Your task to perform on an android device: turn pop-ups on in chrome Image 0: 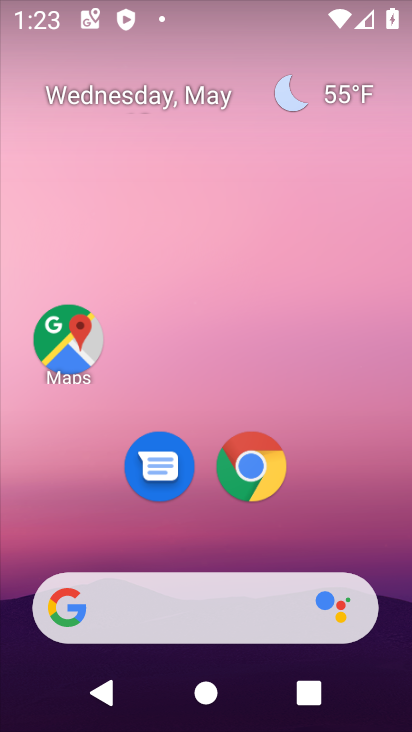
Step 0: click (250, 460)
Your task to perform on an android device: turn pop-ups on in chrome Image 1: 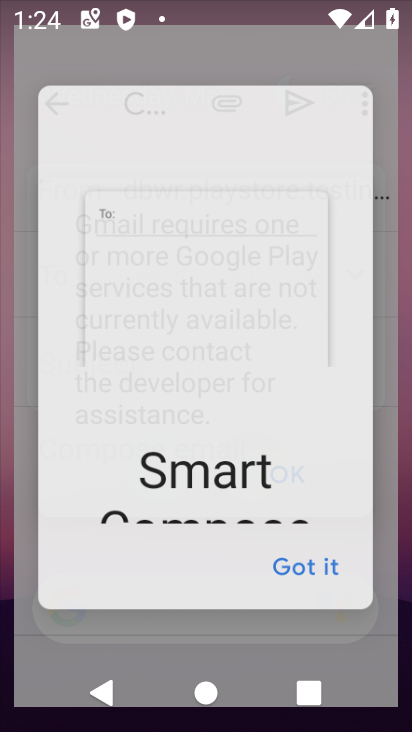
Step 1: click (252, 457)
Your task to perform on an android device: turn pop-ups on in chrome Image 2: 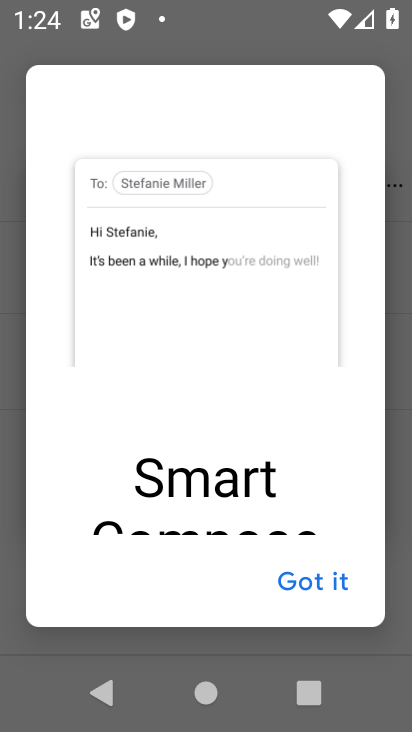
Step 2: press home button
Your task to perform on an android device: turn pop-ups on in chrome Image 3: 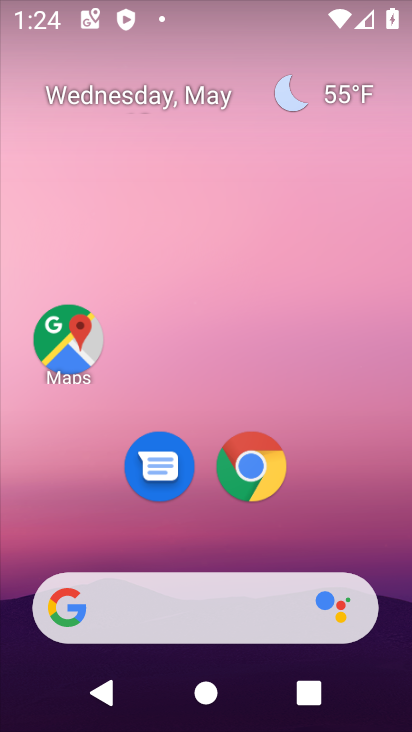
Step 3: click (242, 464)
Your task to perform on an android device: turn pop-ups on in chrome Image 4: 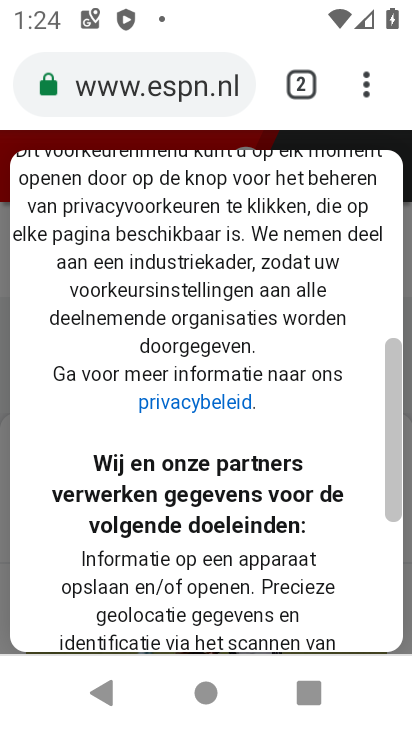
Step 4: click (379, 73)
Your task to perform on an android device: turn pop-ups on in chrome Image 5: 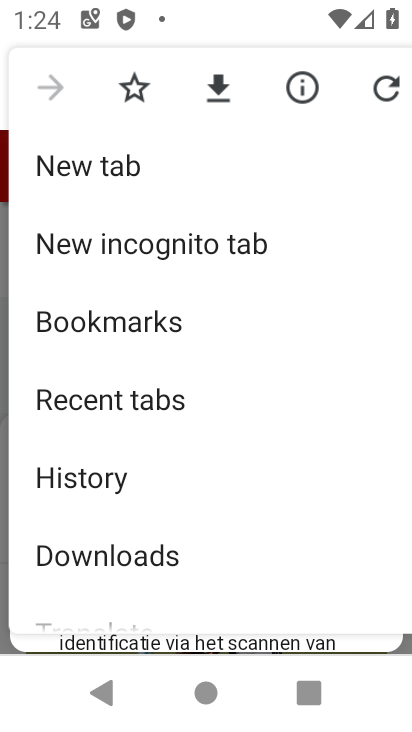
Step 5: drag from (97, 522) to (217, 224)
Your task to perform on an android device: turn pop-ups on in chrome Image 6: 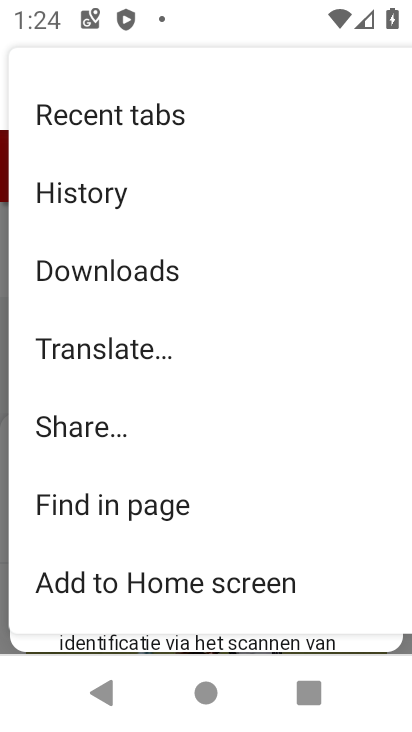
Step 6: drag from (158, 541) to (234, 178)
Your task to perform on an android device: turn pop-ups on in chrome Image 7: 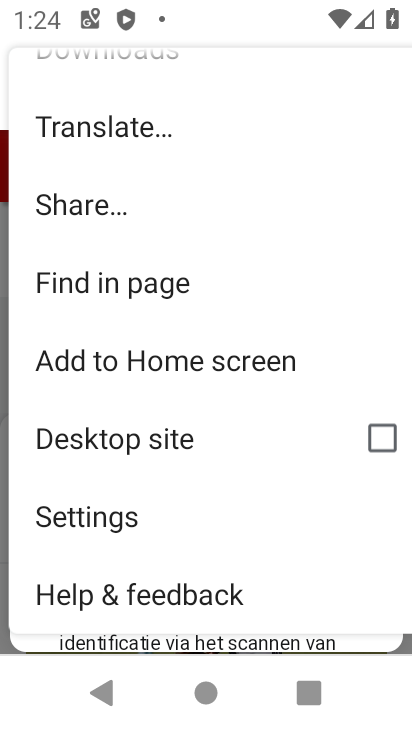
Step 7: click (75, 508)
Your task to perform on an android device: turn pop-ups on in chrome Image 8: 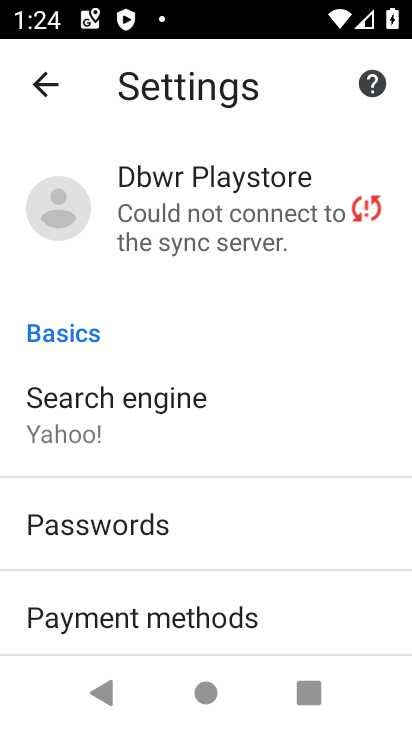
Step 8: drag from (111, 575) to (193, 331)
Your task to perform on an android device: turn pop-ups on in chrome Image 9: 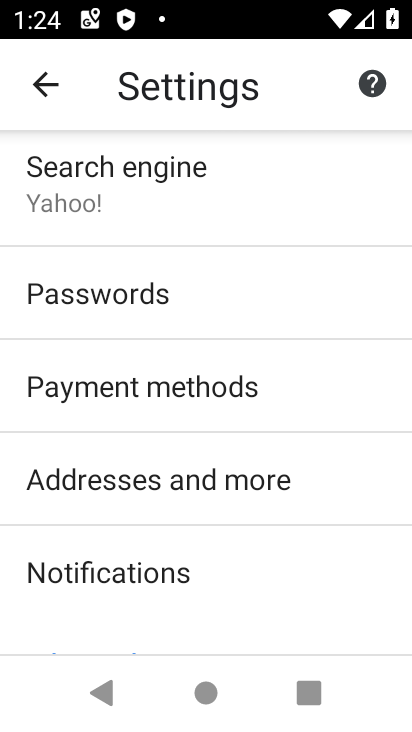
Step 9: drag from (52, 621) to (212, 302)
Your task to perform on an android device: turn pop-ups on in chrome Image 10: 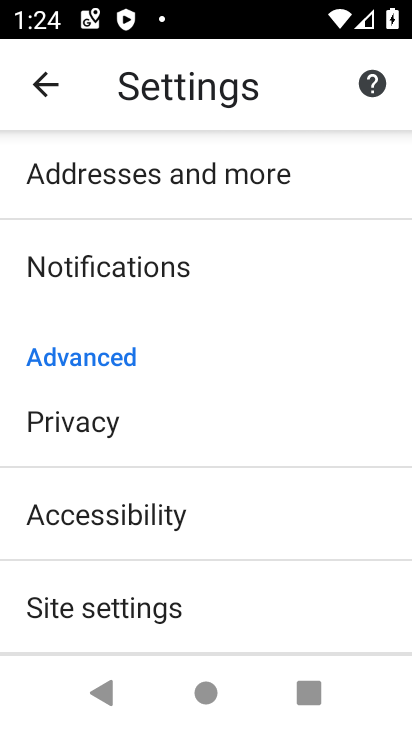
Step 10: click (153, 597)
Your task to perform on an android device: turn pop-ups on in chrome Image 11: 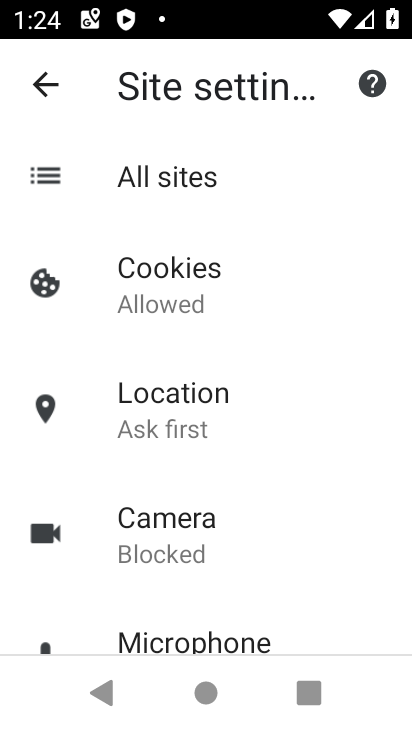
Step 11: drag from (186, 589) to (214, 154)
Your task to perform on an android device: turn pop-ups on in chrome Image 12: 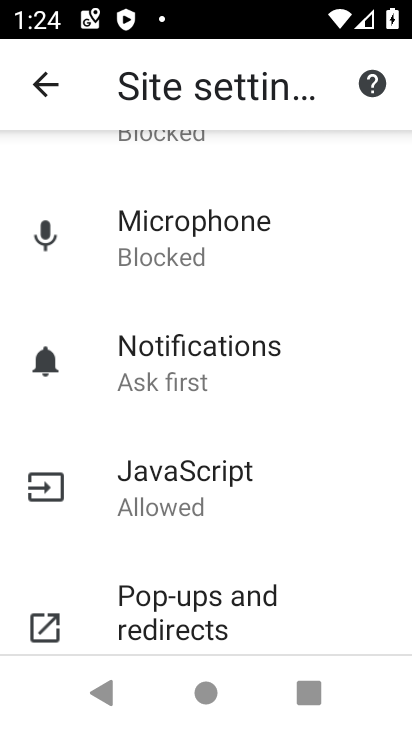
Step 12: click (189, 595)
Your task to perform on an android device: turn pop-ups on in chrome Image 13: 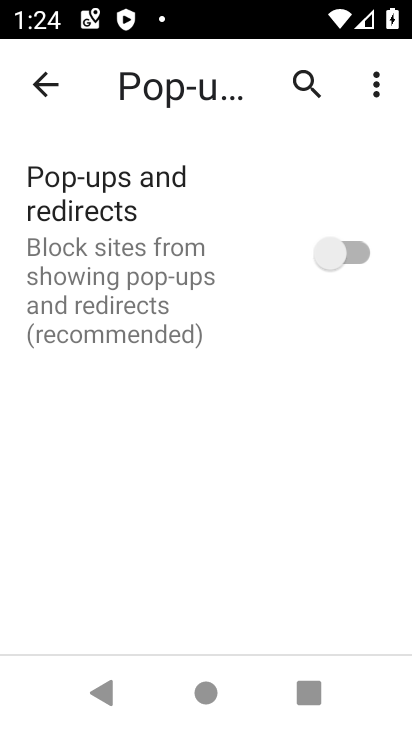
Step 13: click (366, 261)
Your task to perform on an android device: turn pop-ups on in chrome Image 14: 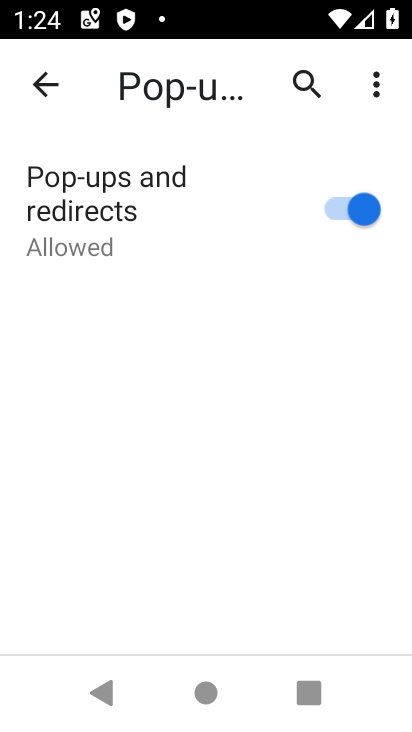
Step 14: task complete